Your task to perform on an android device: Is it going to rain tomorrow? Image 0: 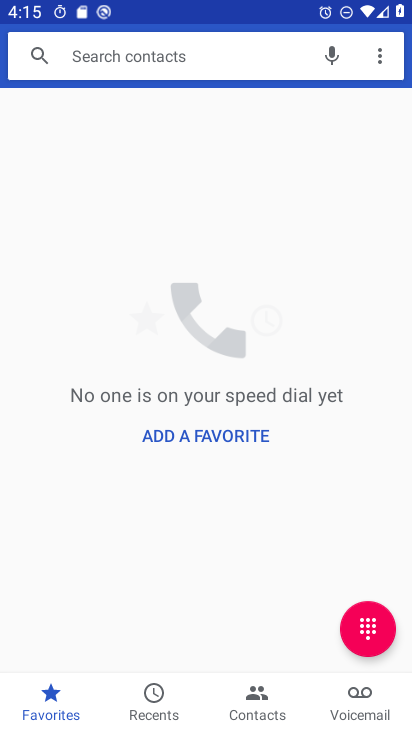
Step 0: press home button
Your task to perform on an android device: Is it going to rain tomorrow? Image 1: 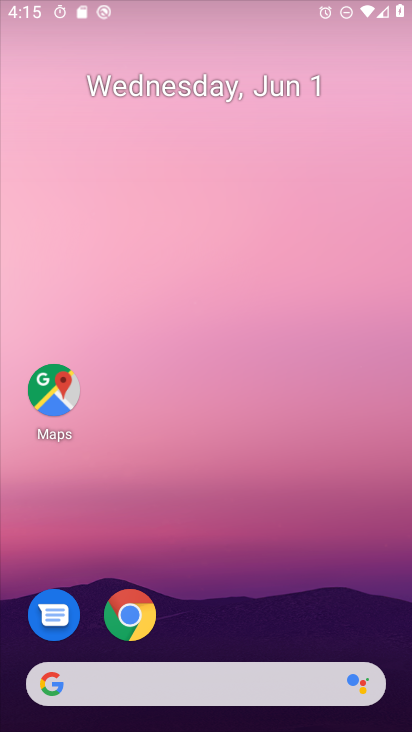
Step 1: drag from (272, 663) to (263, 0)
Your task to perform on an android device: Is it going to rain tomorrow? Image 2: 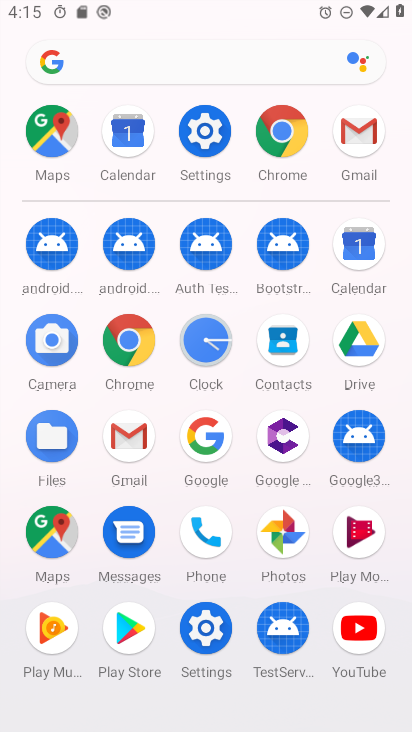
Step 2: press home button
Your task to perform on an android device: Is it going to rain tomorrow? Image 3: 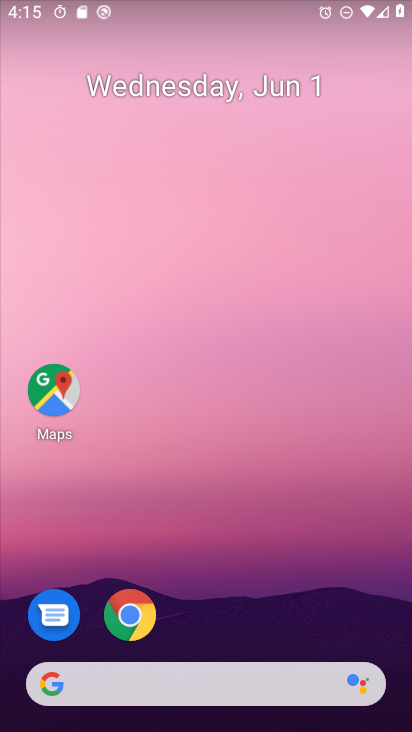
Step 3: drag from (23, 267) to (353, 271)
Your task to perform on an android device: Is it going to rain tomorrow? Image 4: 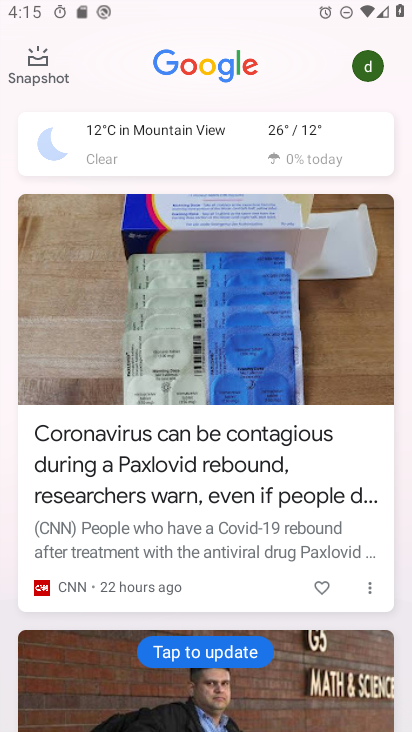
Step 4: click (160, 133)
Your task to perform on an android device: Is it going to rain tomorrow? Image 5: 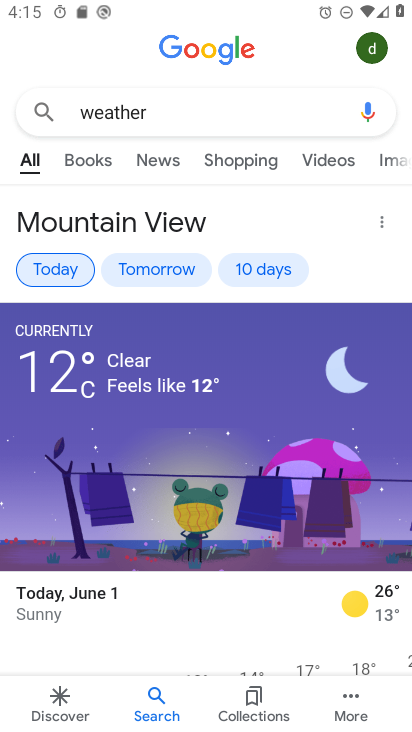
Step 5: click (194, 277)
Your task to perform on an android device: Is it going to rain tomorrow? Image 6: 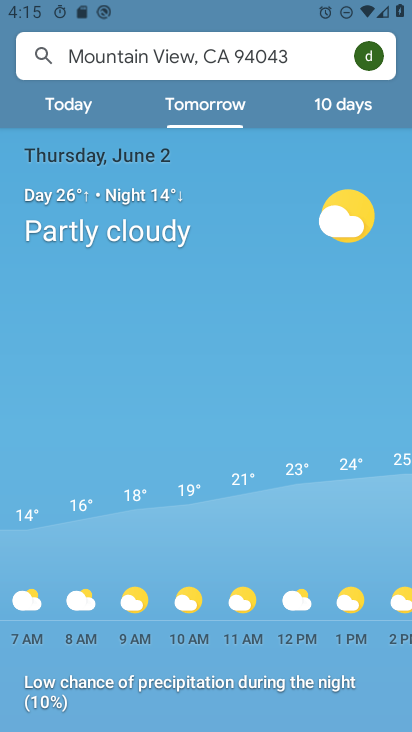
Step 6: task complete